Your task to perform on an android device: check data usage Image 0: 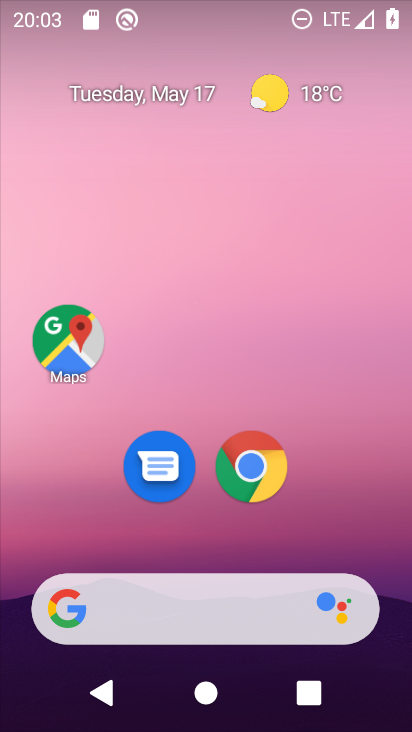
Step 0: press home button
Your task to perform on an android device: check data usage Image 1: 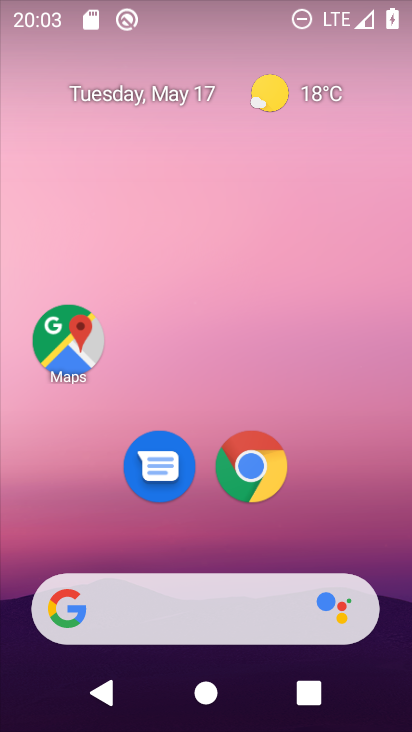
Step 1: drag from (195, 612) to (338, 158)
Your task to perform on an android device: check data usage Image 2: 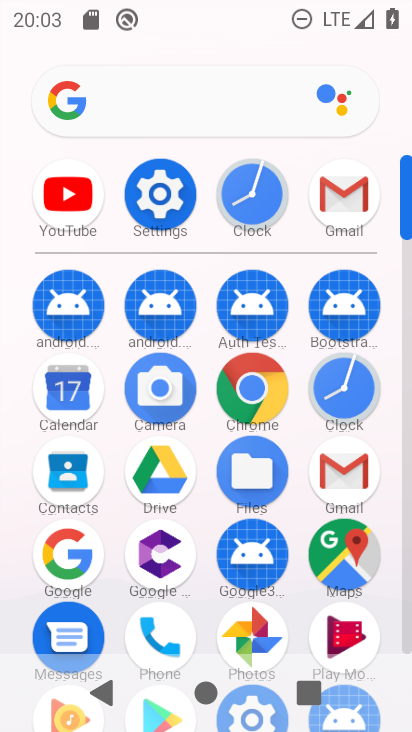
Step 2: click (162, 206)
Your task to perform on an android device: check data usage Image 3: 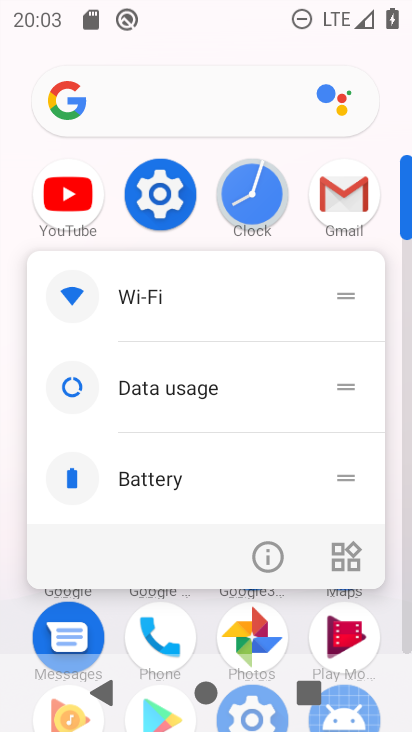
Step 3: click (167, 196)
Your task to perform on an android device: check data usage Image 4: 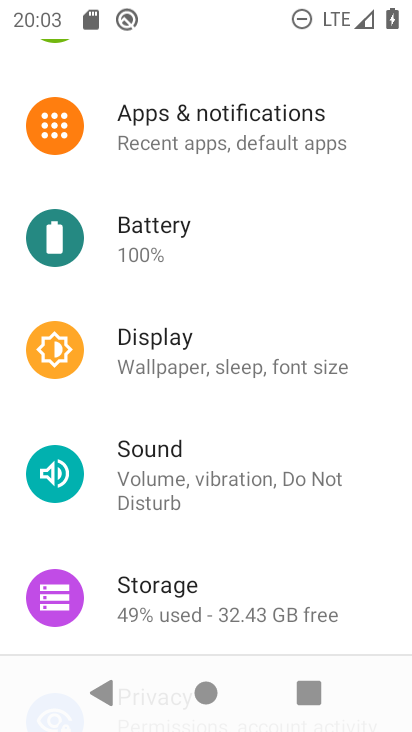
Step 4: drag from (317, 190) to (168, 569)
Your task to perform on an android device: check data usage Image 5: 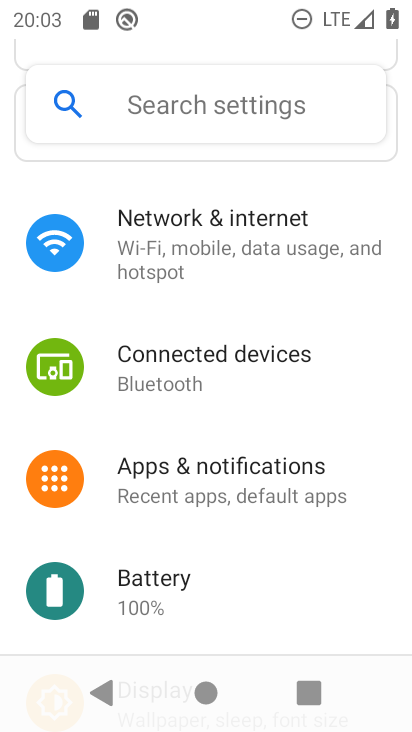
Step 5: click (230, 226)
Your task to perform on an android device: check data usage Image 6: 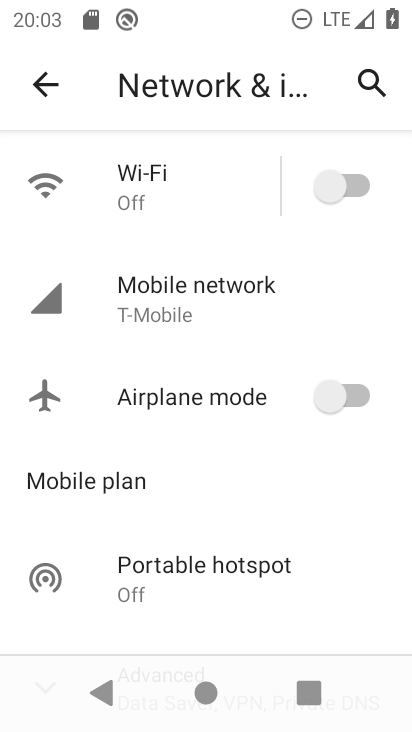
Step 6: click (144, 187)
Your task to perform on an android device: check data usage Image 7: 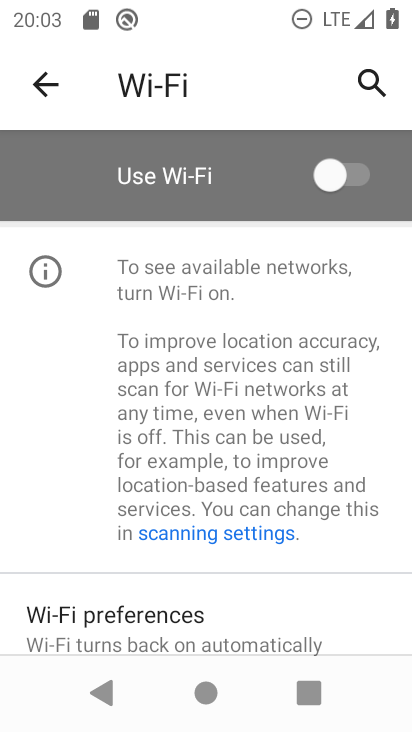
Step 7: drag from (186, 571) to (302, 140)
Your task to perform on an android device: check data usage Image 8: 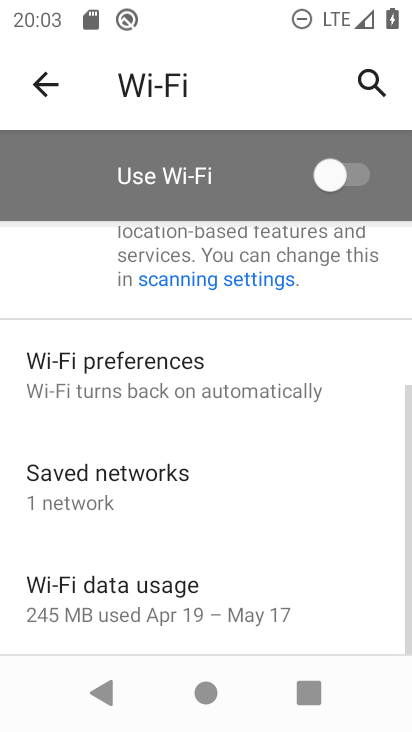
Step 8: click (153, 591)
Your task to perform on an android device: check data usage Image 9: 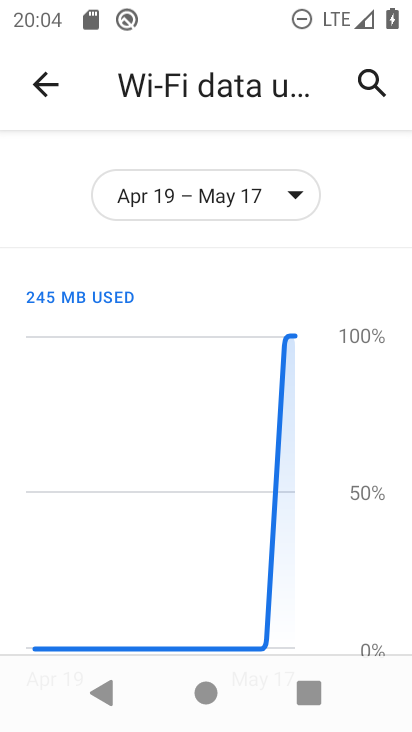
Step 9: task complete